Your task to perform on an android device: Open the web browser Image 0: 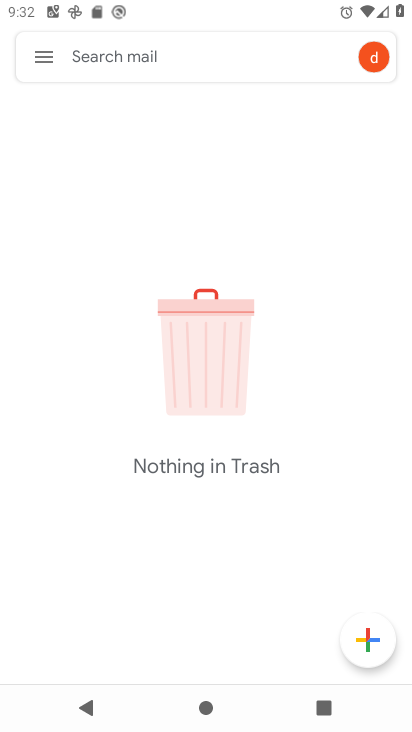
Step 0: press home button
Your task to perform on an android device: Open the web browser Image 1: 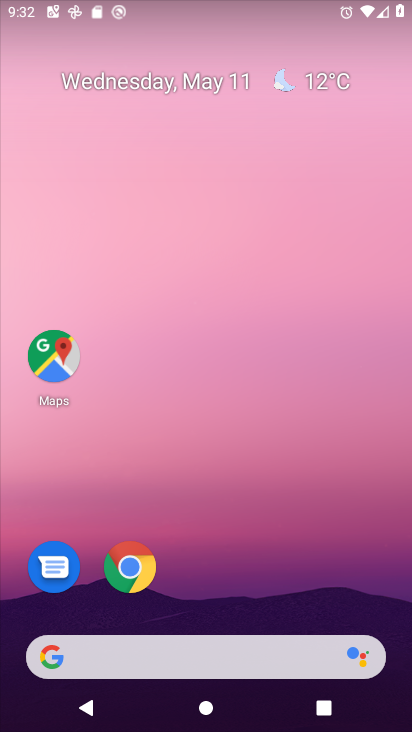
Step 1: click (143, 564)
Your task to perform on an android device: Open the web browser Image 2: 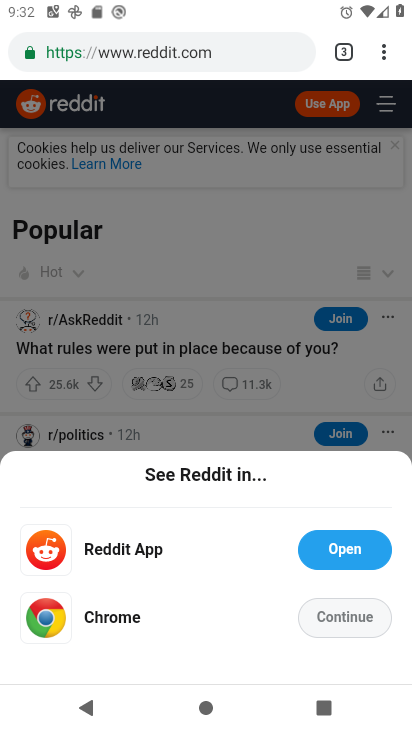
Step 2: press home button
Your task to perform on an android device: Open the web browser Image 3: 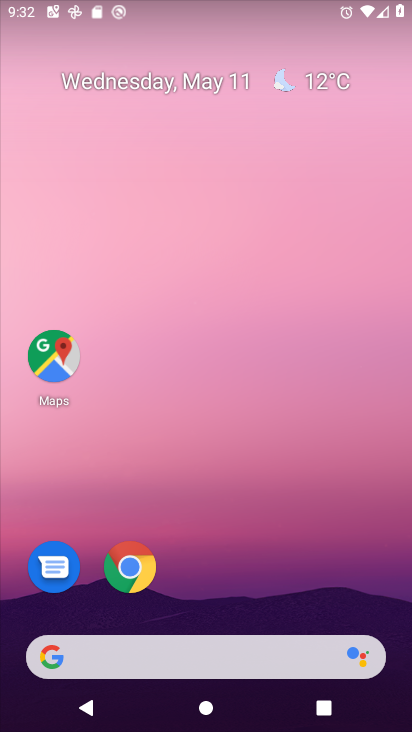
Step 3: click (127, 576)
Your task to perform on an android device: Open the web browser Image 4: 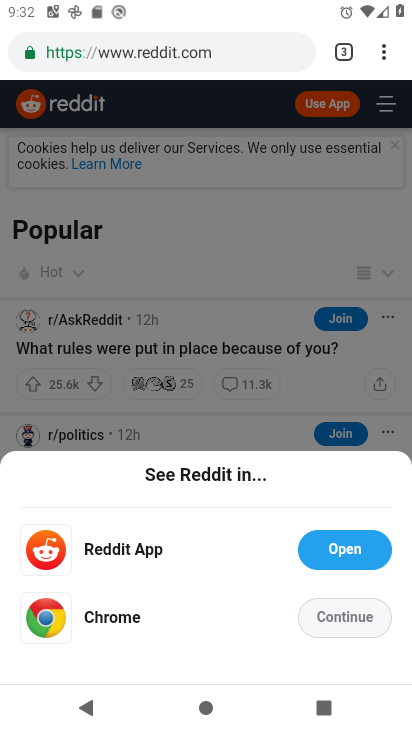
Step 4: task complete